Your task to perform on an android device: open a bookmark in the chrome app Image 0: 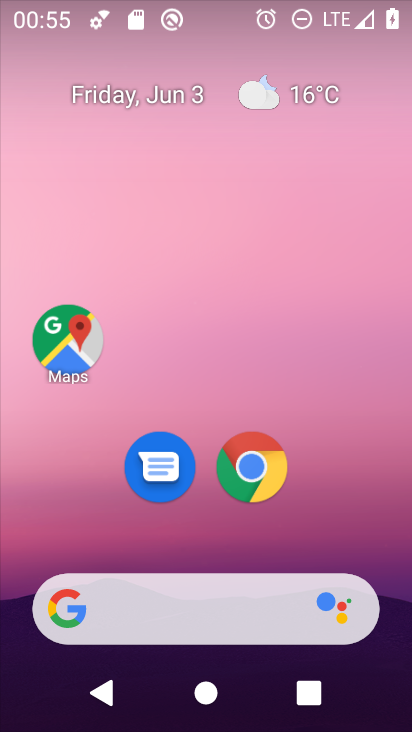
Step 0: click (253, 466)
Your task to perform on an android device: open a bookmark in the chrome app Image 1: 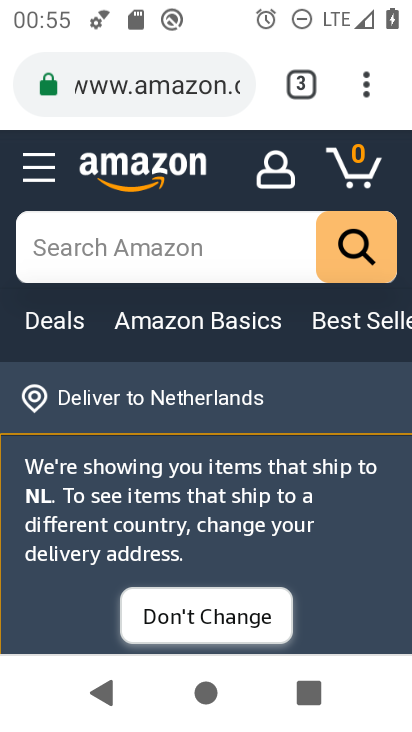
Step 1: click (364, 93)
Your task to perform on an android device: open a bookmark in the chrome app Image 2: 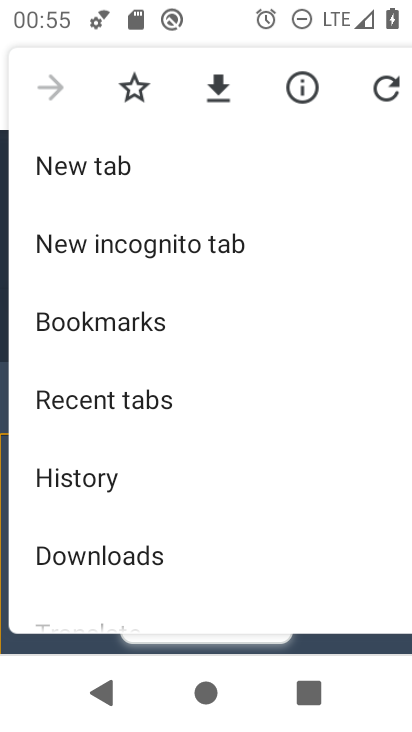
Step 2: click (106, 312)
Your task to perform on an android device: open a bookmark in the chrome app Image 3: 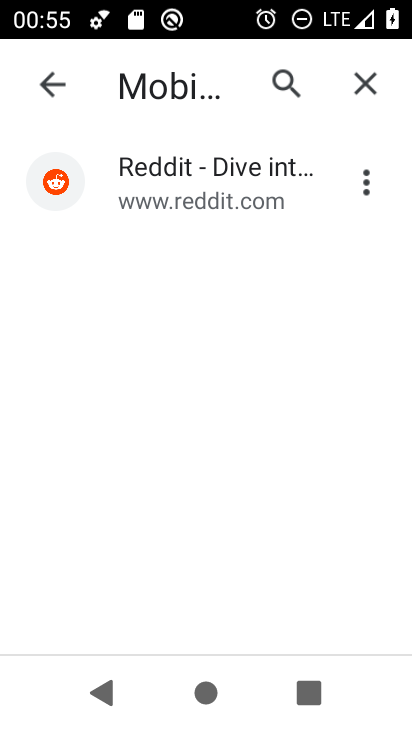
Step 3: task complete